Your task to perform on an android device: What's a good restaurant in Dallas? Image 0: 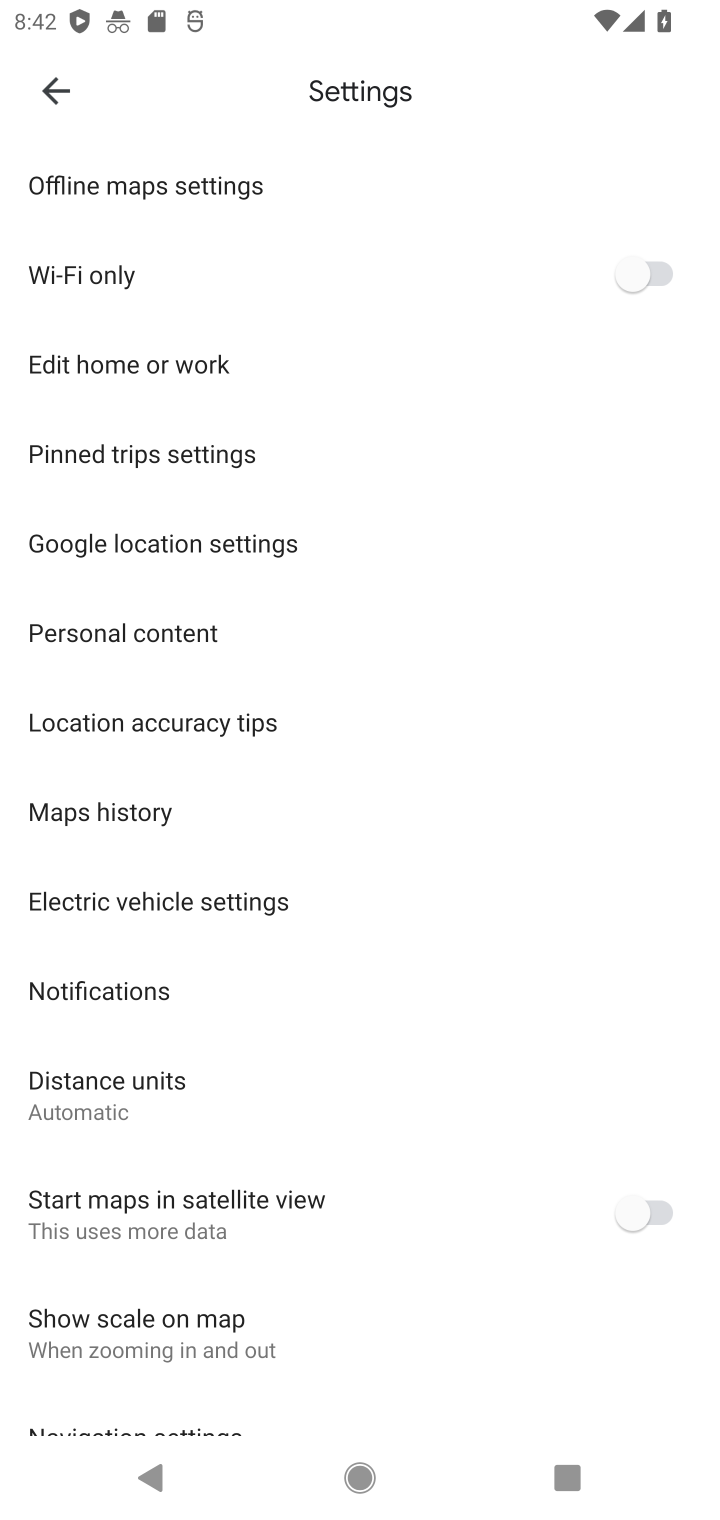
Step 0: press home button
Your task to perform on an android device: What's a good restaurant in Dallas? Image 1: 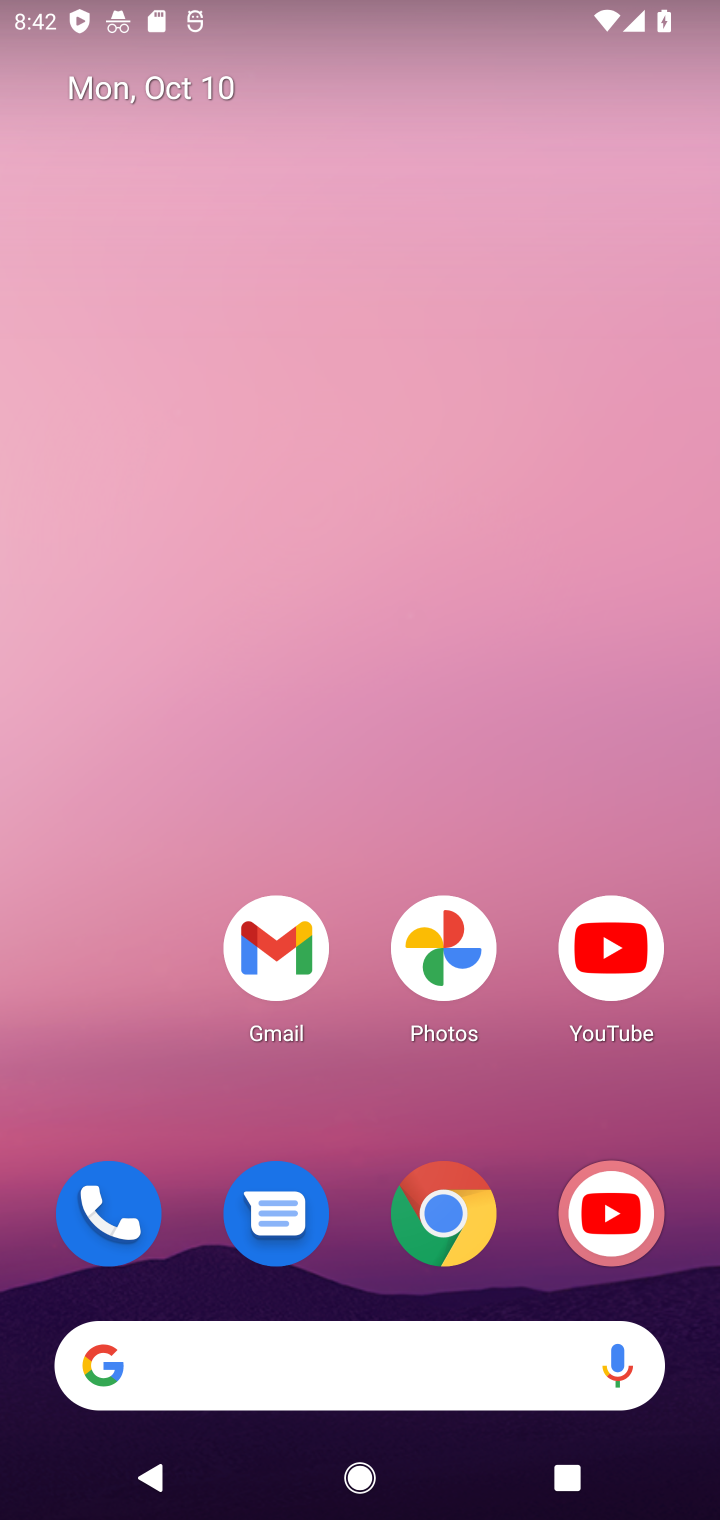
Step 1: click (268, 1349)
Your task to perform on an android device: What's a good restaurant in Dallas? Image 2: 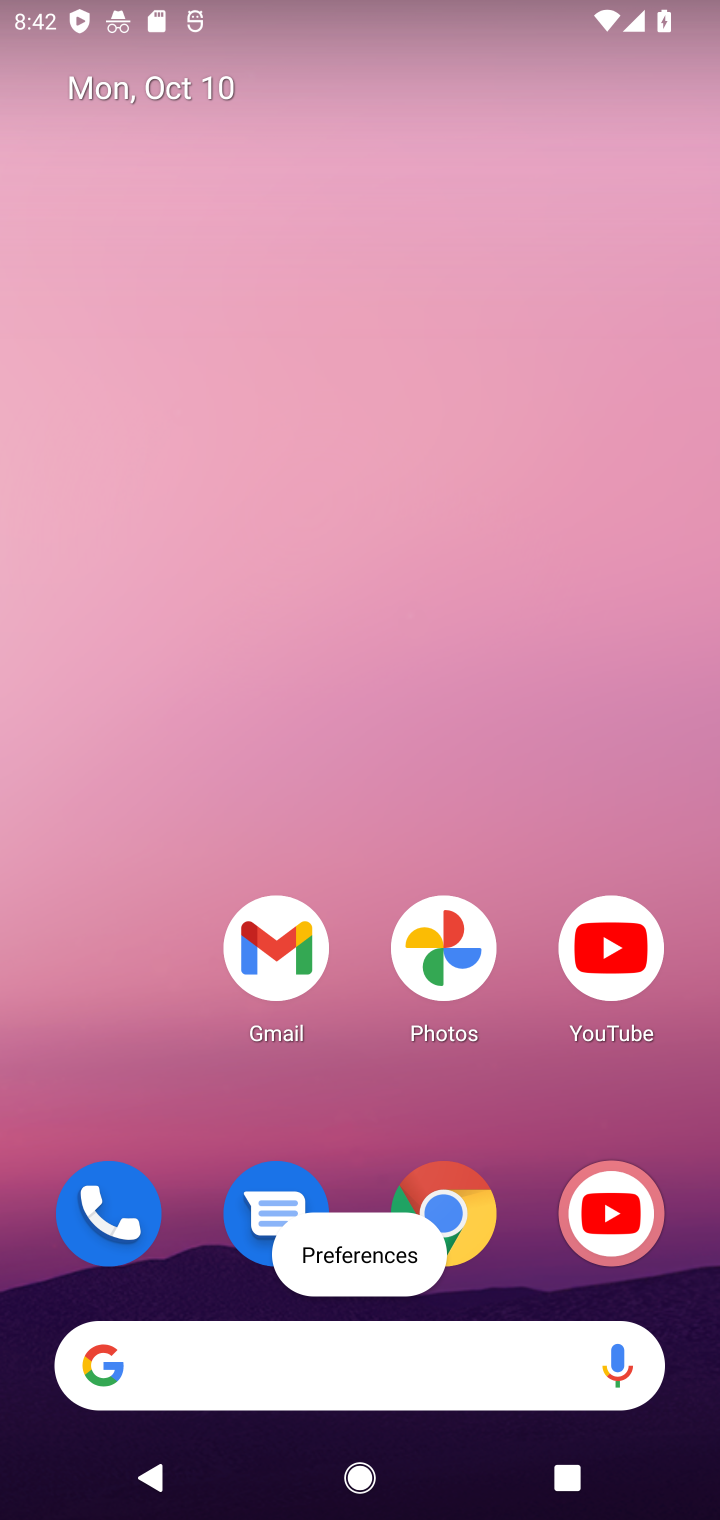
Step 2: click (259, 1358)
Your task to perform on an android device: What's a good restaurant in Dallas? Image 3: 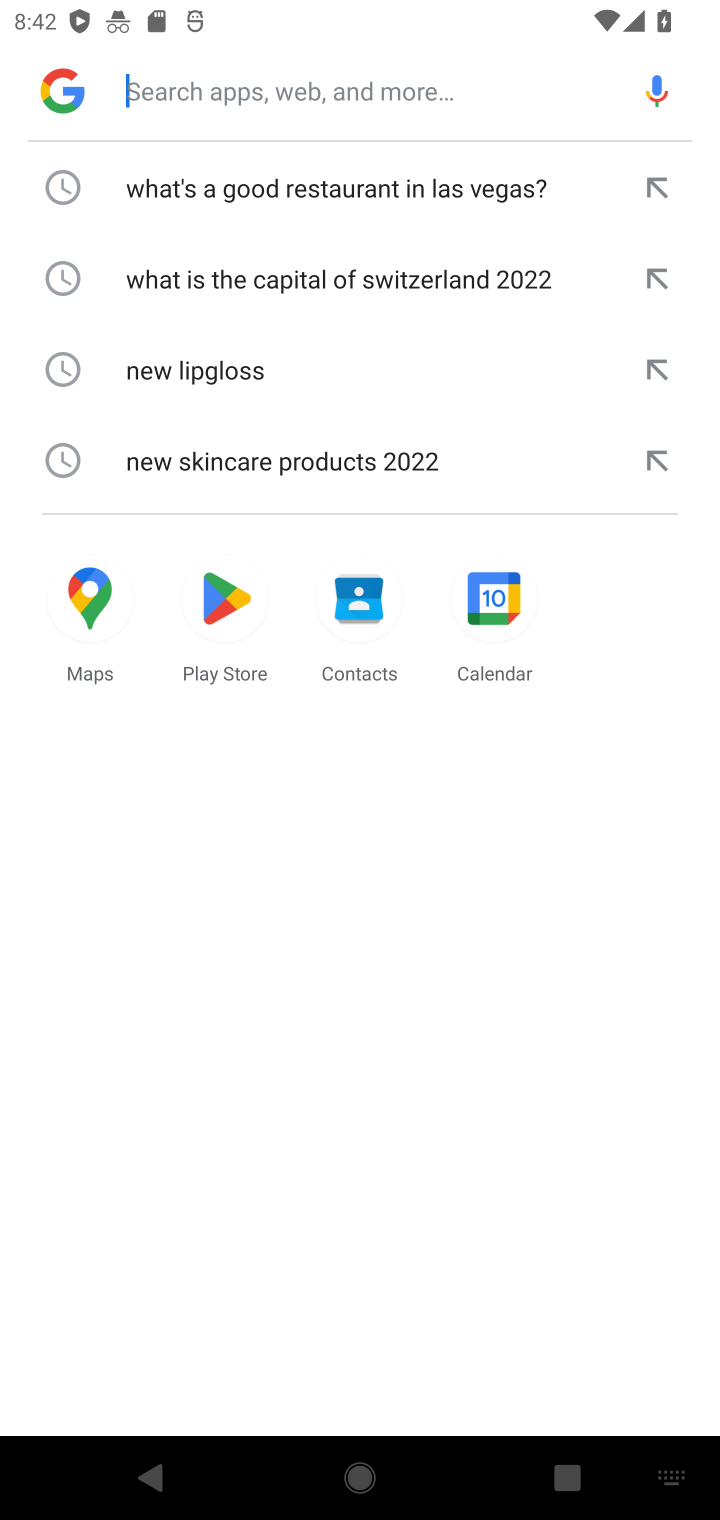
Step 3: click (267, 84)
Your task to perform on an android device: What's a good restaurant in Dallas? Image 4: 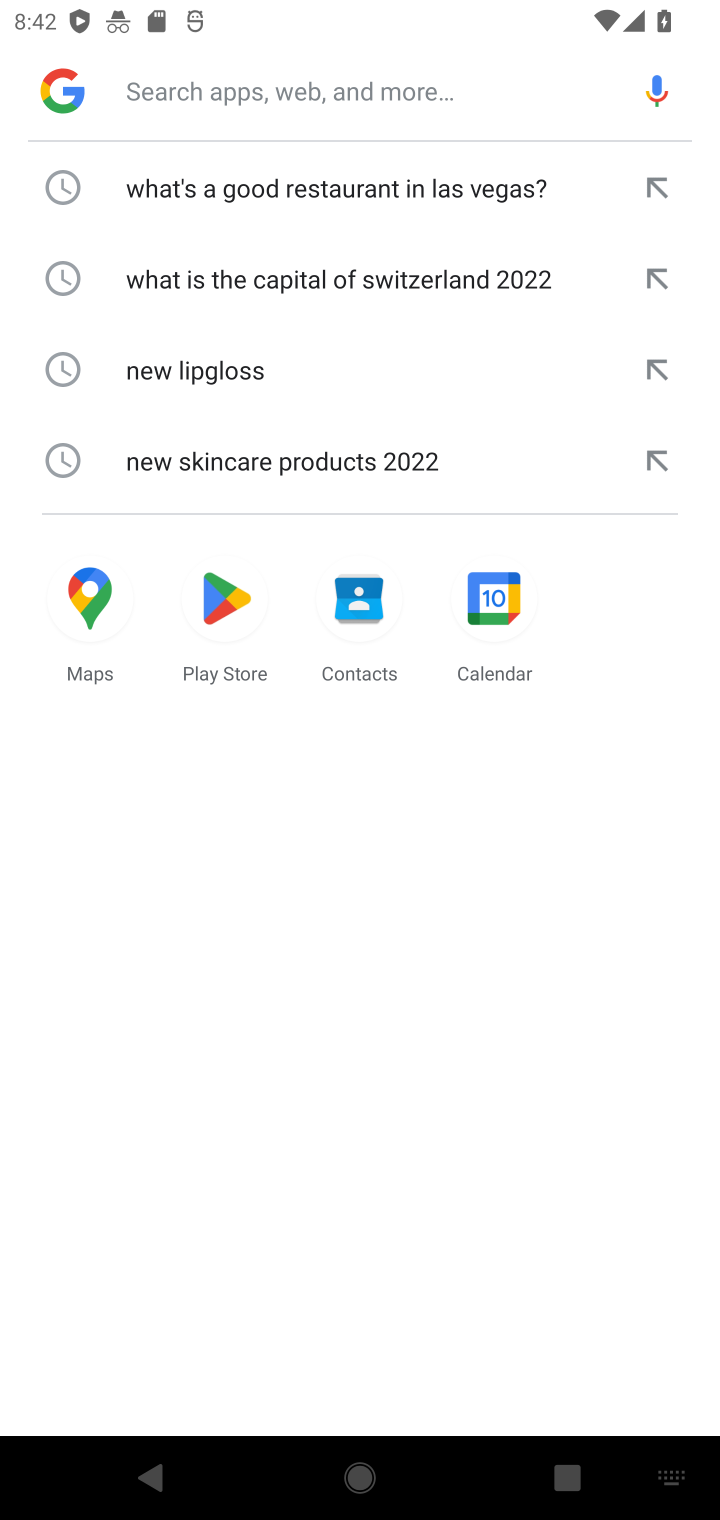
Step 4: type "What's a good restaurant in Dallas"
Your task to perform on an android device: What's a good restaurant in Dallas? Image 5: 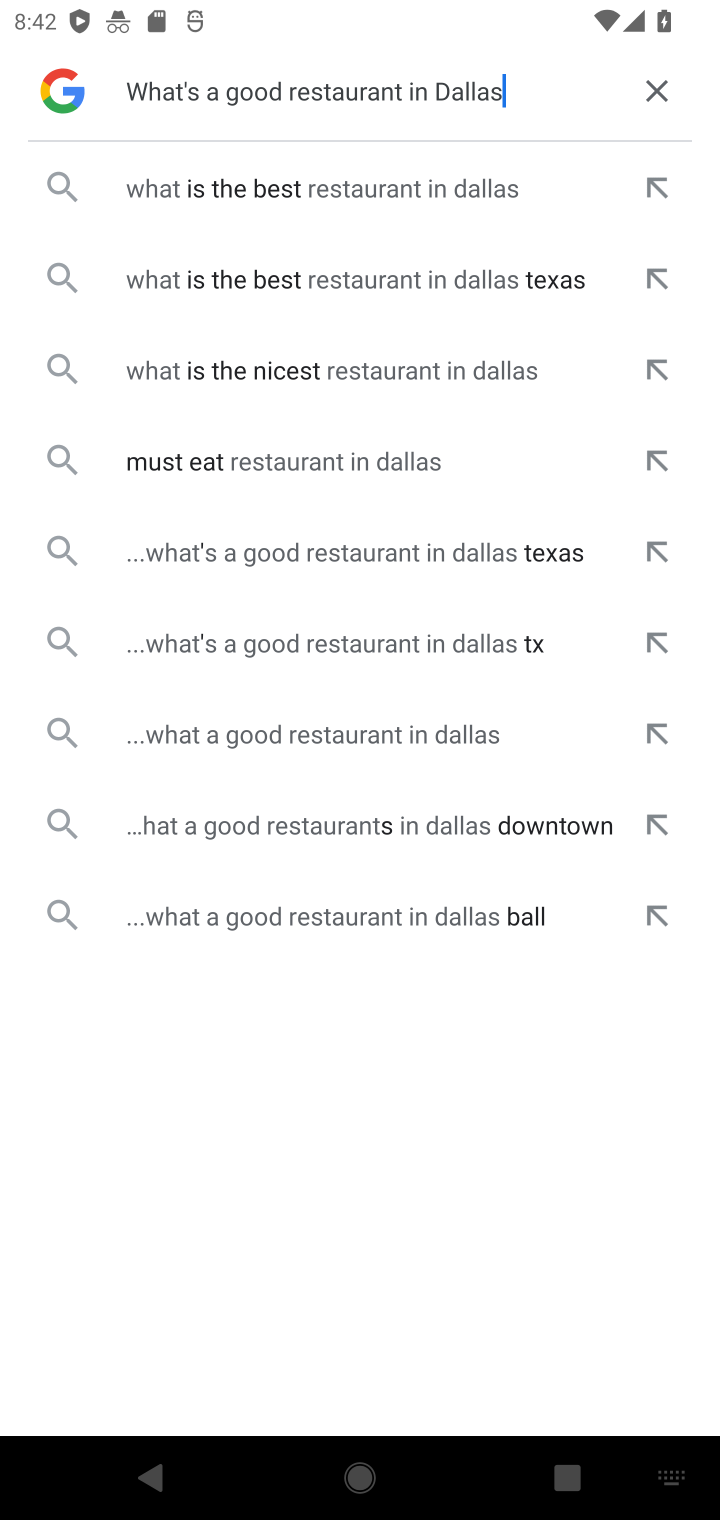
Step 5: click (395, 192)
Your task to perform on an android device: What's a good restaurant in Dallas? Image 6: 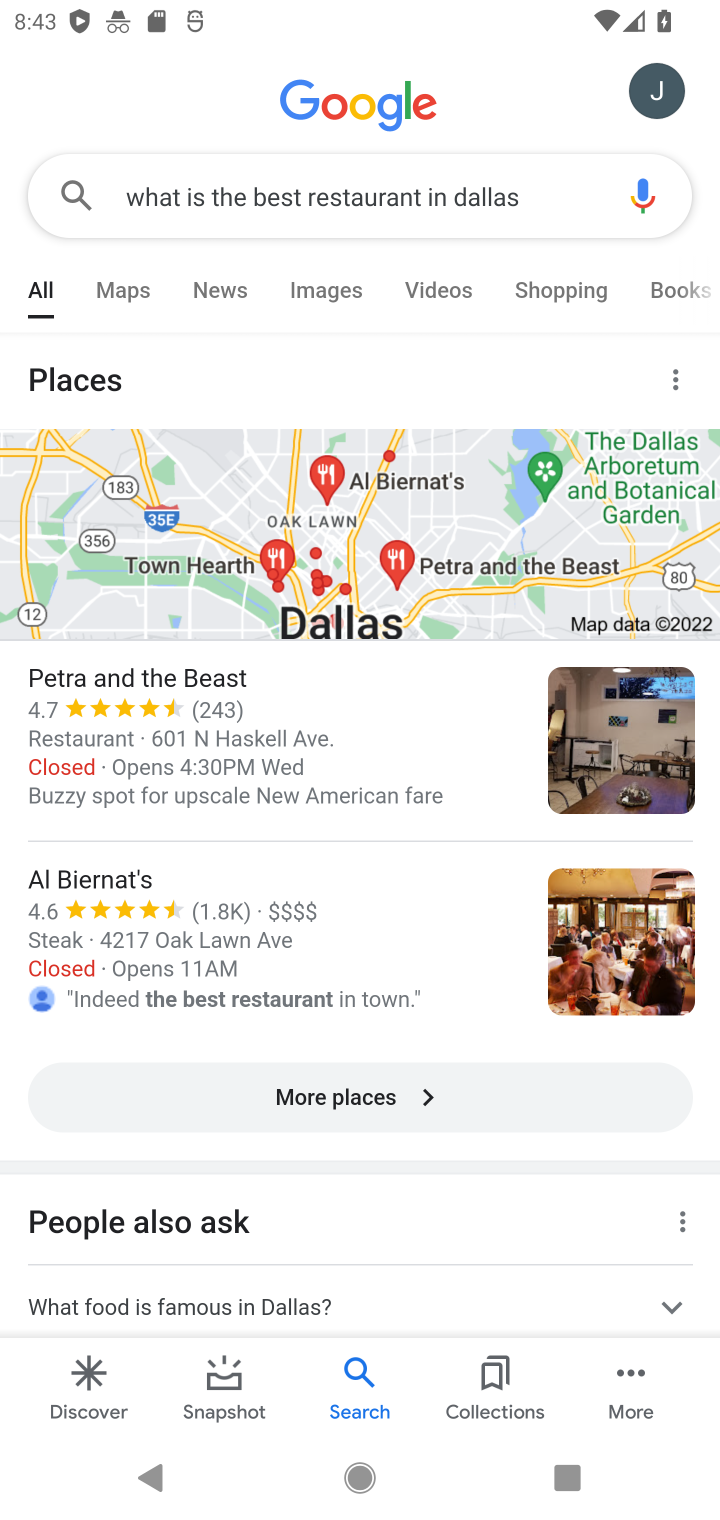
Step 6: task complete